Your task to perform on an android device: What's the weather today? Image 0: 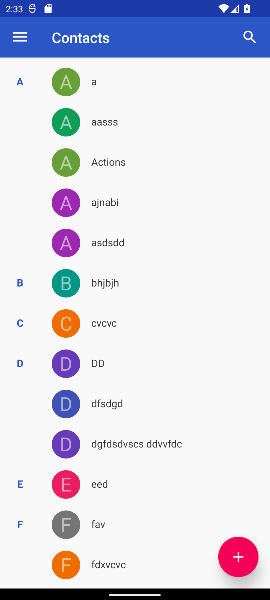
Step 0: press home button
Your task to perform on an android device: What's the weather today? Image 1: 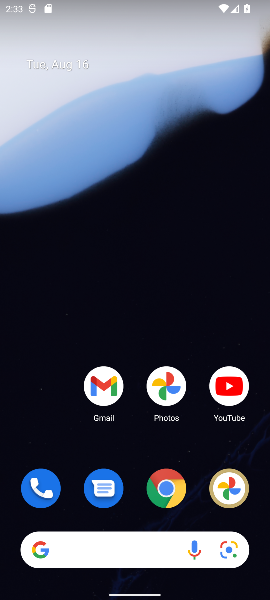
Step 1: click (116, 541)
Your task to perform on an android device: What's the weather today? Image 2: 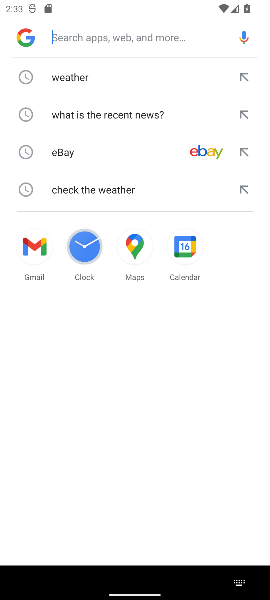
Step 2: press enter
Your task to perform on an android device: What's the weather today? Image 3: 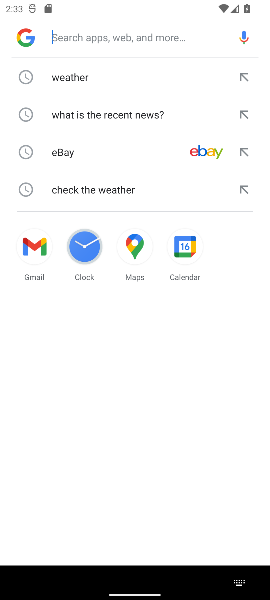
Step 3: type "What's the weather today?"
Your task to perform on an android device: What's the weather today? Image 4: 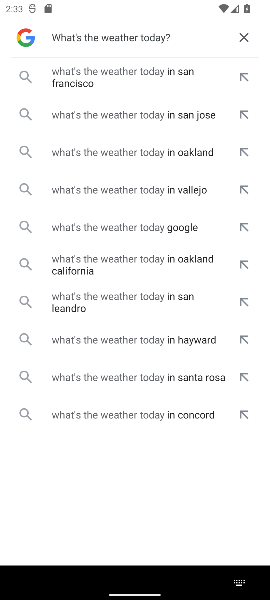
Step 4: task complete